Your task to perform on an android device: change text size in settings app Image 0: 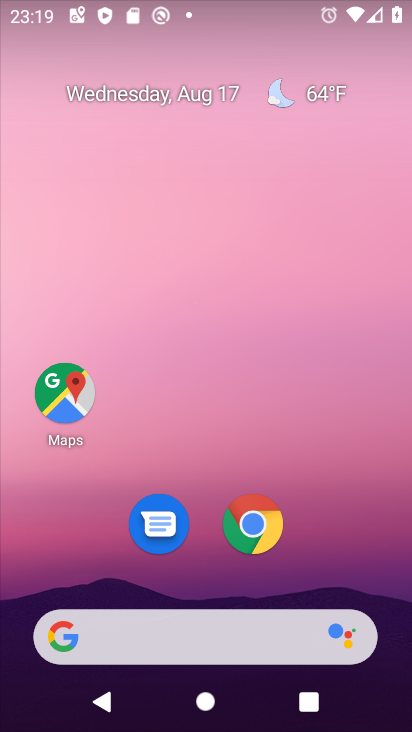
Step 0: drag from (311, 480) to (341, 2)
Your task to perform on an android device: change text size in settings app Image 1: 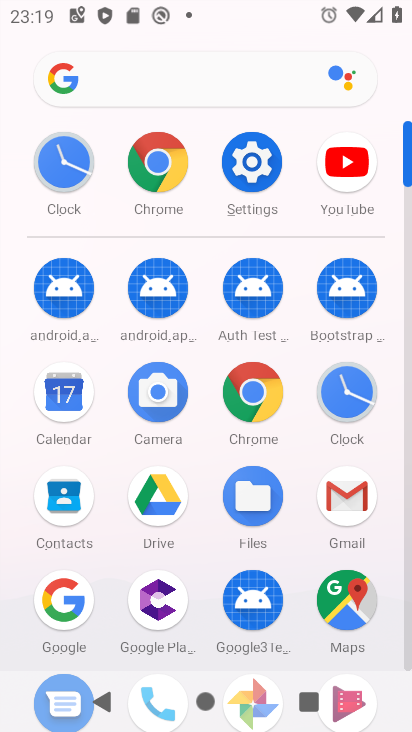
Step 1: click (250, 159)
Your task to perform on an android device: change text size in settings app Image 2: 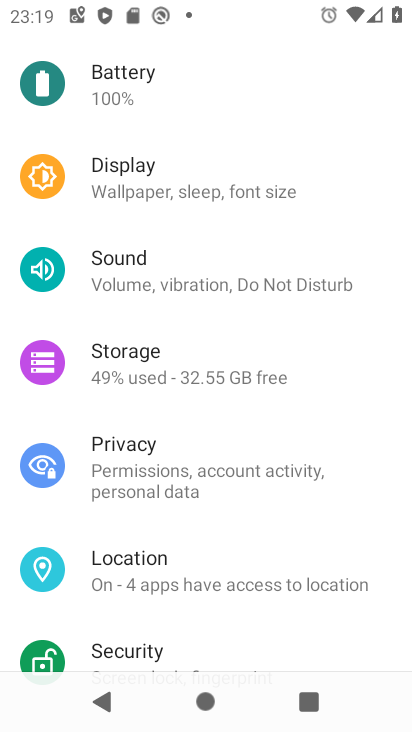
Step 2: click (240, 181)
Your task to perform on an android device: change text size in settings app Image 3: 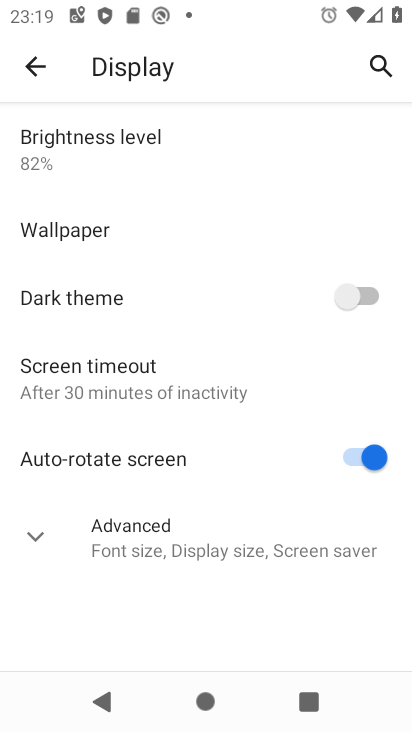
Step 3: click (32, 531)
Your task to perform on an android device: change text size in settings app Image 4: 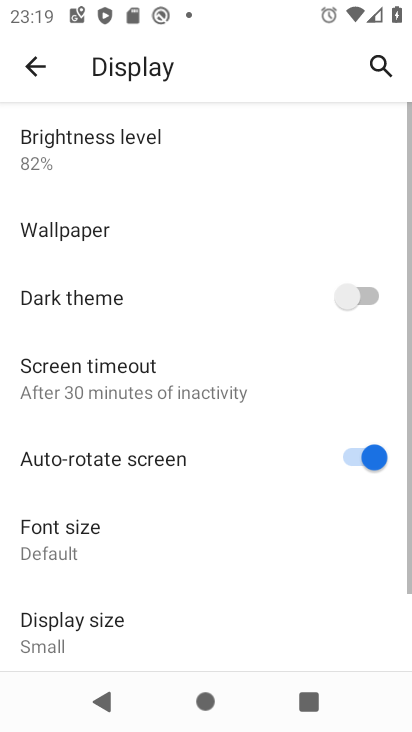
Step 4: drag from (187, 428) to (225, 93)
Your task to perform on an android device: change text size in settings app Image 5: 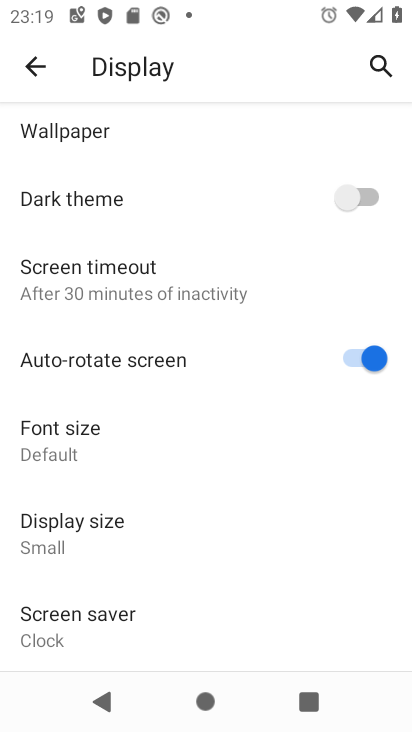
Step 5: click (100, 446)
Your task to perform on an android device: change text size in settings app Image 6: 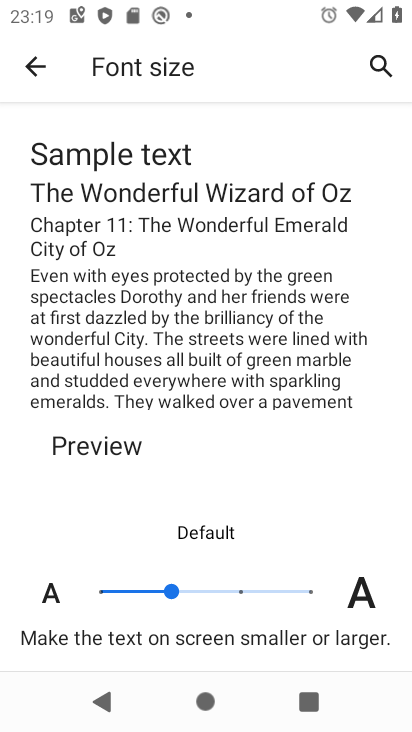
Step 6: click (239, 590)
Your task to perform on an android device: change text size in settings app Image 7: 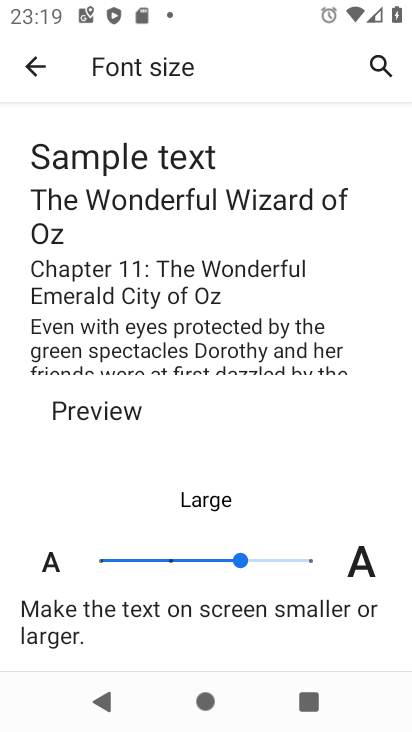
Step 7: click (41, 66)
Your task to perform on an android device: change text size in settings app Image 8: 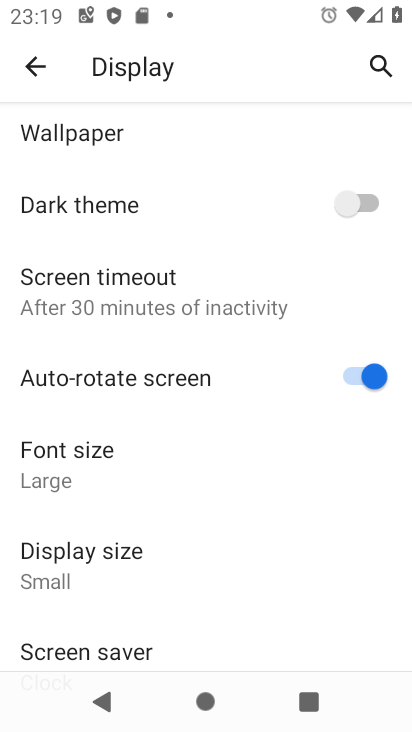
Step 8: task complete